Your task to perform on an android device: manage bookmarks in the chrome app Image 0: 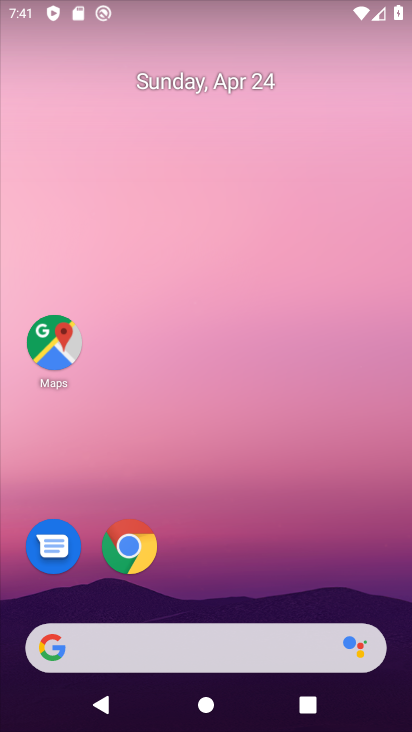
Step 0: click (106, 536)
Your task to perform on an android device: manage bookmarks in the chrome app Image 1: 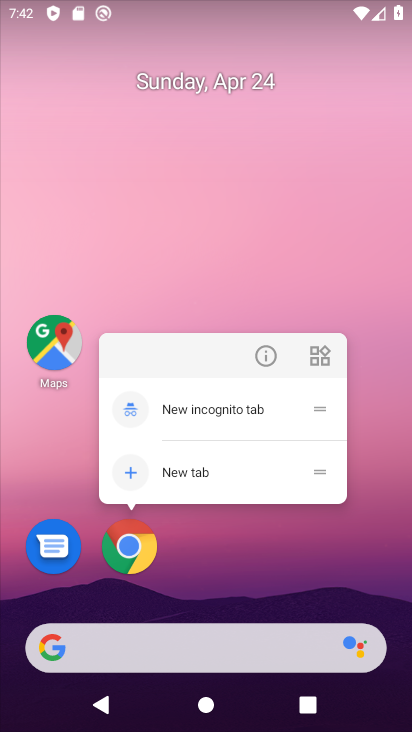
Step 1: click (252, 346)
Your task to perform on an android device: manage bookmarks in the chrome app Image 2: 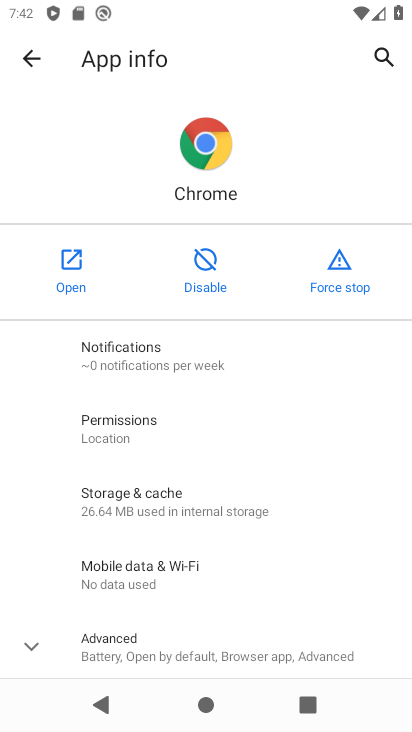
Step 2: click (92, 285)
Your task to perform on an android device: manage bookmarks in the chrome app Image 3: 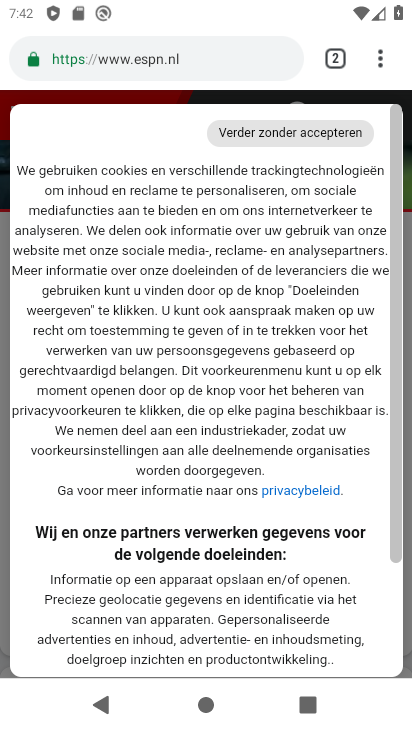
Step 3: drag from (378, 44) to (204, 280)
Your task to perform on an android device: manage bookmarks in the chrome app Image 4: 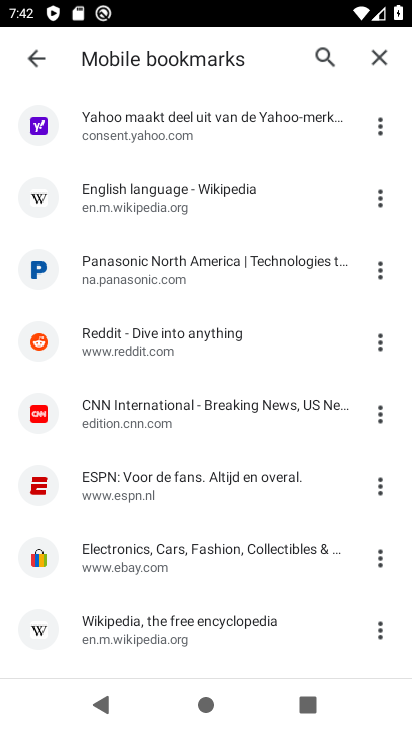
Step 4: click (380, 260)
Your task to perform on an android device: manage bookmarks in the chrome app Image 5: 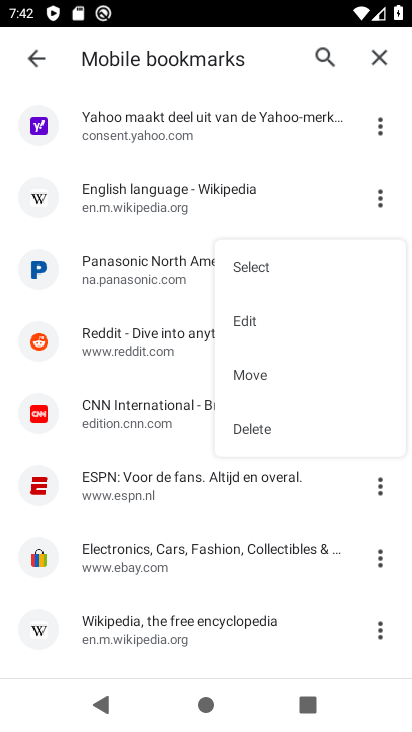
Step 5: click (283, 378)
Your task to perform on an android device: manage bookmarks in the chrome app Image 6: 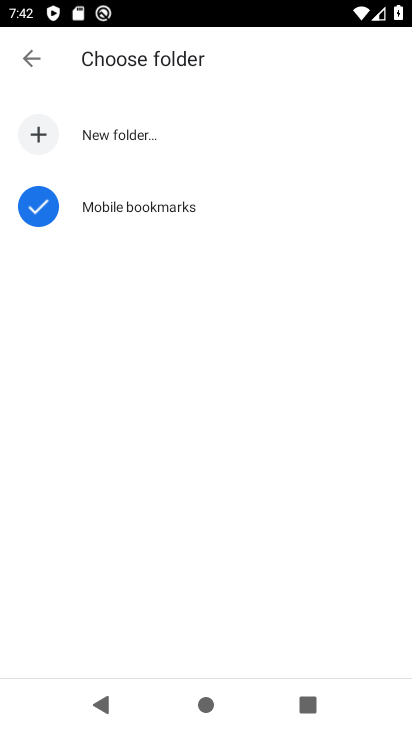
Step 6: click (32, 131)
Your task to perform on an android device: manage bookmarks in the chrome app Image 7: 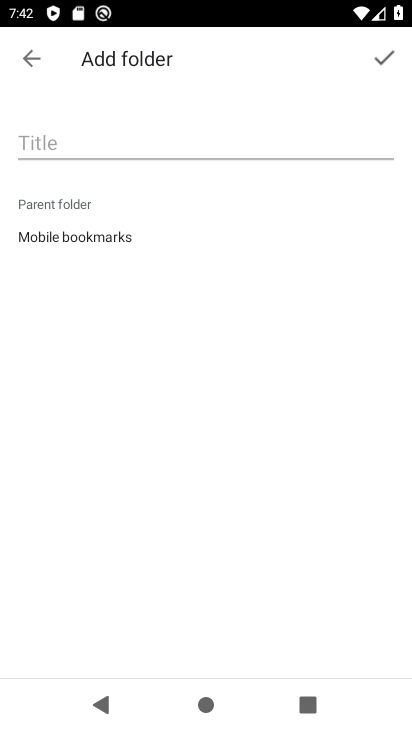
Step 7: drag from (210, 512) to (174, 165)
Your task to perform on an android device: manage bookmarks in the chrome app Image 8: 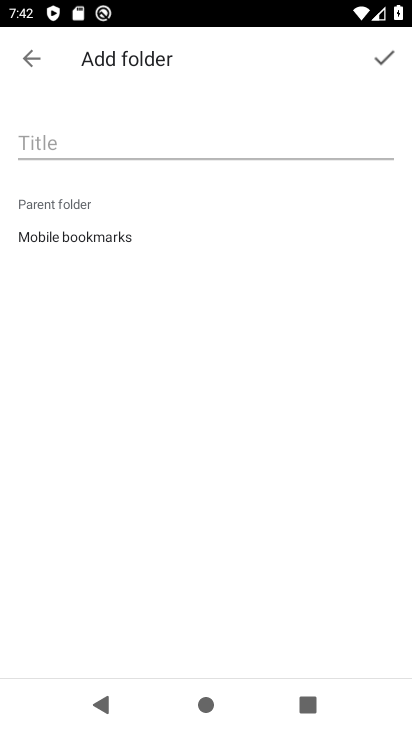
Step 8: click (132, 143)
Your task to perform on an android device: manage bookmarks in the chrome app Image 9: 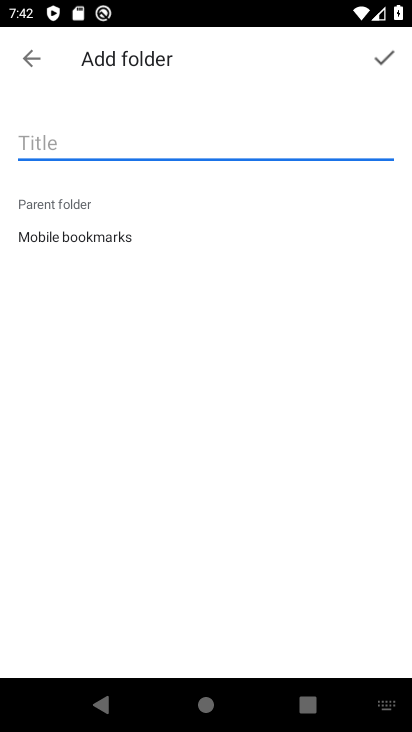
Step 9: type "mkl"
Your task to perform on an android device: manage bookmarks in the chrome app Image 10: 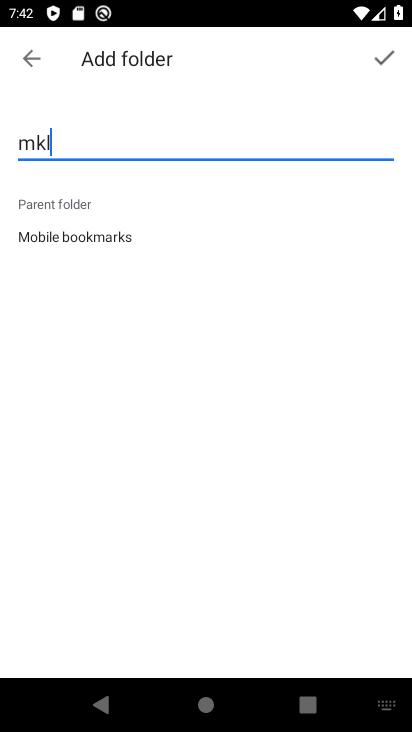
Step 10: click (384, 60)
Your task to perform on an android device: manage bookmarks in the chrome app Image 11: 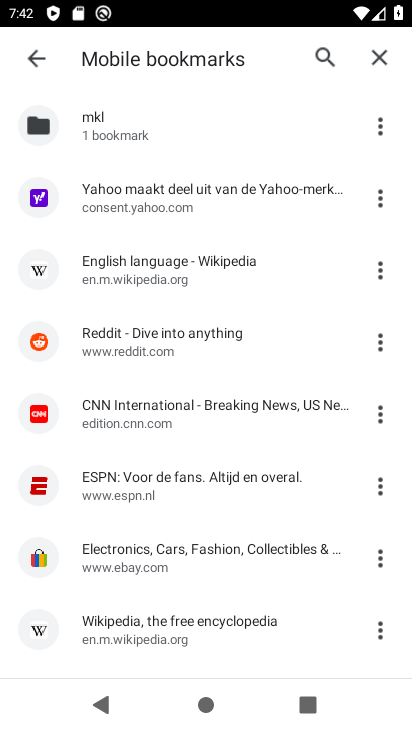
Step 11: task complete